Your task to perform on an android device: Show me recent news Image 0: 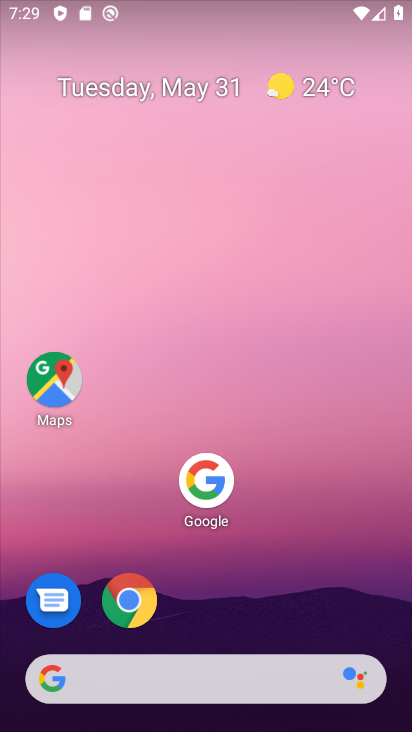
Step 0: click (59, 679)
Your task to perform on an android device: Show me recent news Image 1: 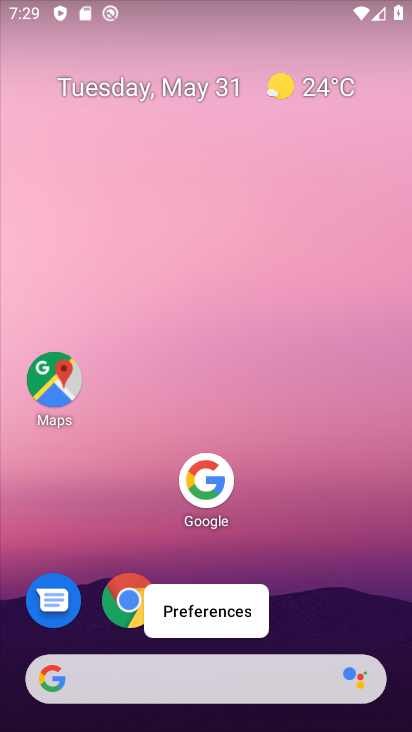
Step 1: click (53, 682)
Your task to perform on an android device: Show me recent news Image 2: 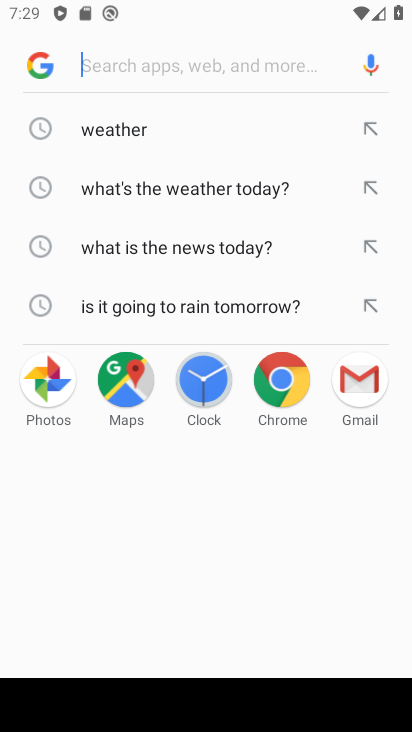
Step 2: type "news"
Your task to perform on an android device: Show me recent news Image 3: 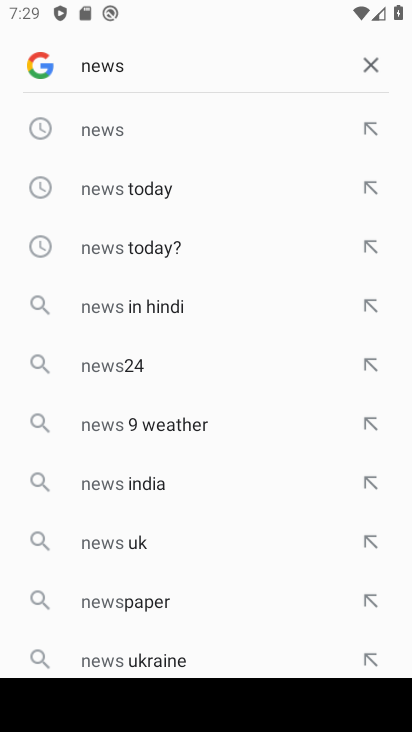
Step 3: click (121, 129)
Your task to perform on an android device: Show me recent news Image 4: 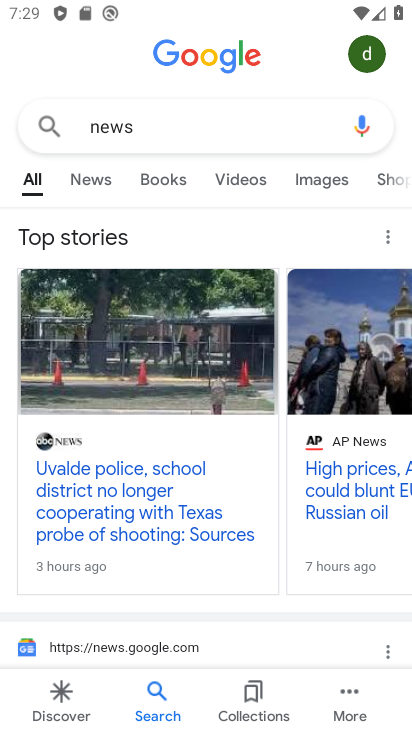
Step 4: click (94, 173)
Your task to perform on an android device: Show me recent news Image 5: 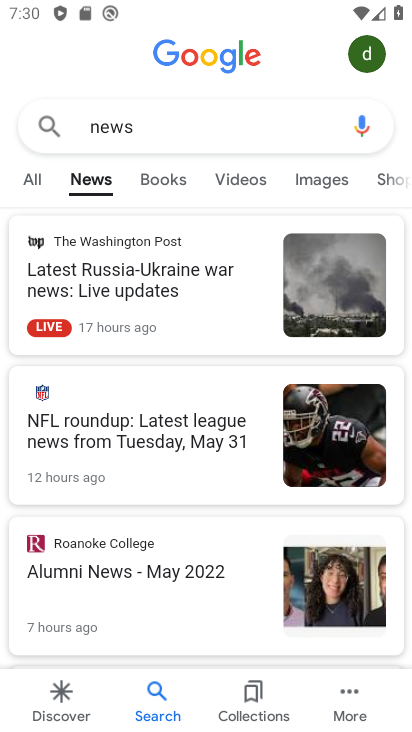
Step 5: task complete